Your task to perform on an android device: Look up the top rated headphones on Amazon. Image 0: 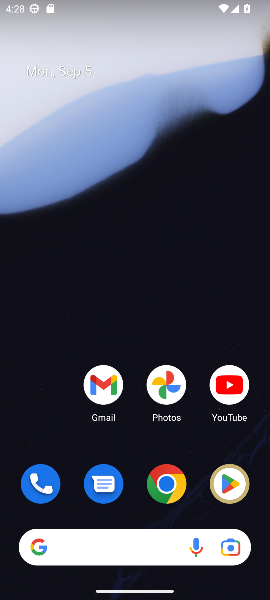
Step 0: click (163, 486)
Your task to perform on an android device: Look up the top rated headphones on Amazon. Image 1: 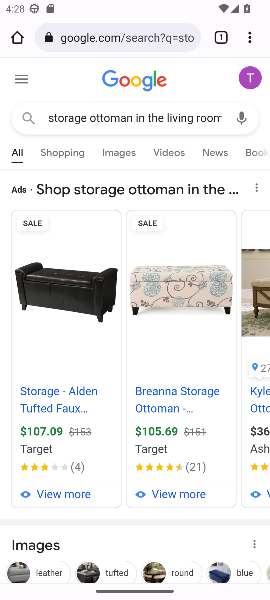
Step 1: click (152, 28)
Your task to perform on an android device: Look up the top rated headphones on Amazon. Image 2: 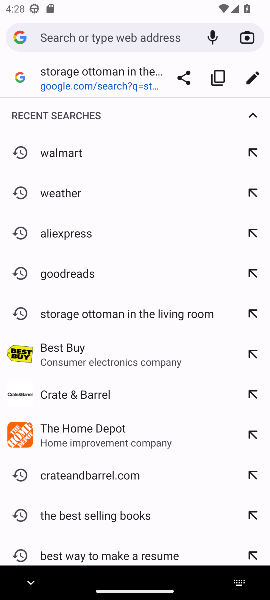
Step 2: click (154, 38)
Your task to perform on an android device: Look up the top rated headphones on Amazon. Image 3: 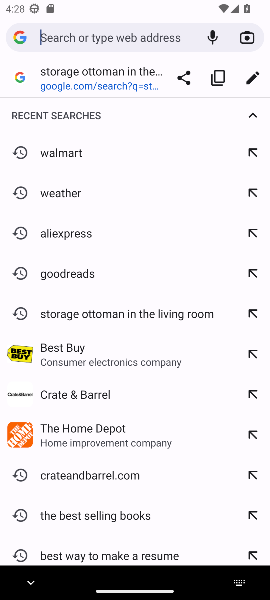
Step 3: type "Amazon"
Your task to perform on an android device: Look up the top rated headphones on Amazon. Image 4: 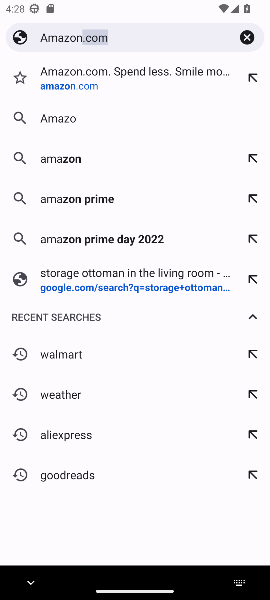
Step 4: press enter
Your task to perform on an android device: Look up the top rated headphones on Amazon. Image 5: 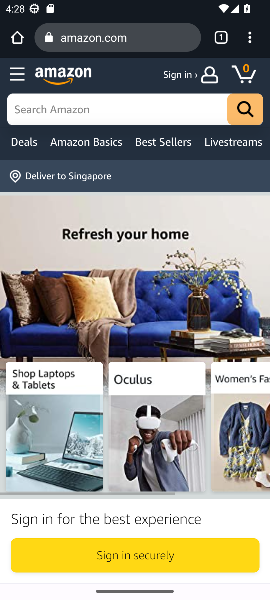
Step 5: click (120, 110)
Your task to perform on an android device: Look up the top rated headphones on Amazon. Image 6: 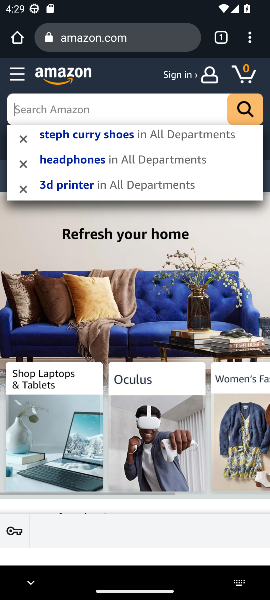
Step 6: type "headphones"
Your task to perform on an android device: Look up the top rated headphones on Amazon. Image 7: 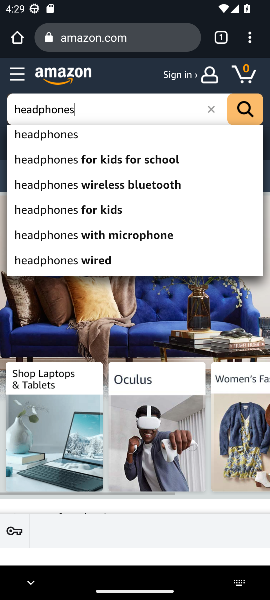
Step 7: click (246, 108)
Your task to perform on an android device: Look up the top rated headphones on Amazon. Image 8: 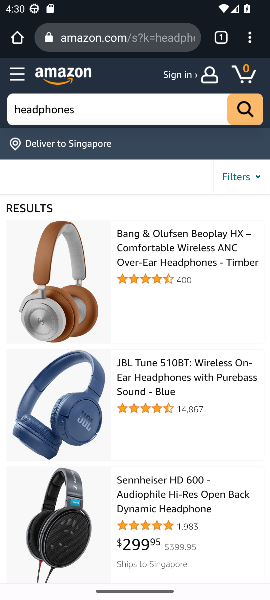
Step 8: task complete